Your task to perform on an android device: Search for nike dri-fit shirts on Nike Image 0: 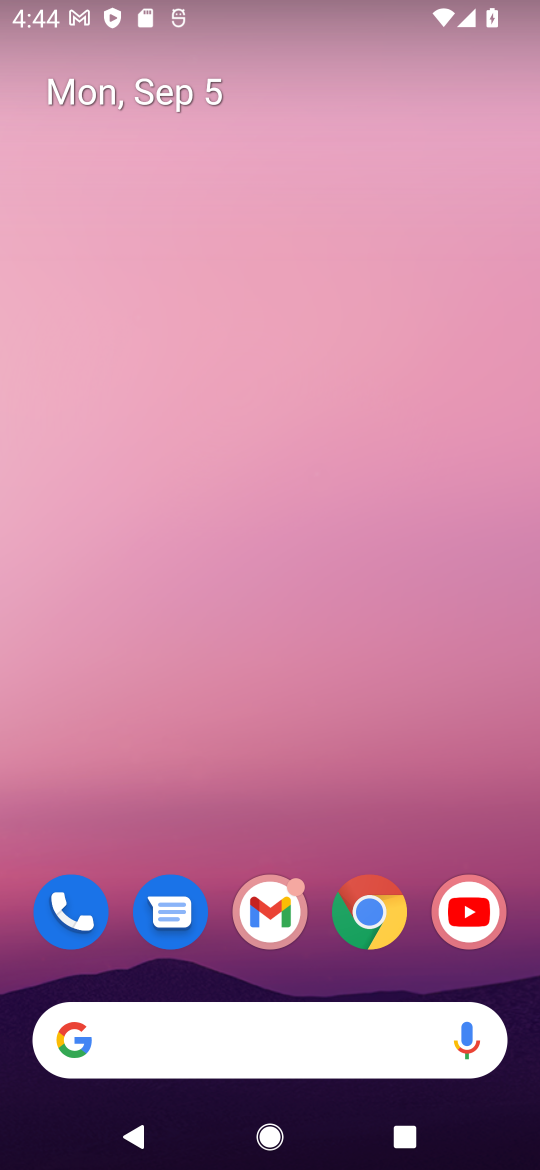
Step 0: click (378, 922)
Your task to perform on an android device: Search for nike dri-fit shirts on Nike Image 1: 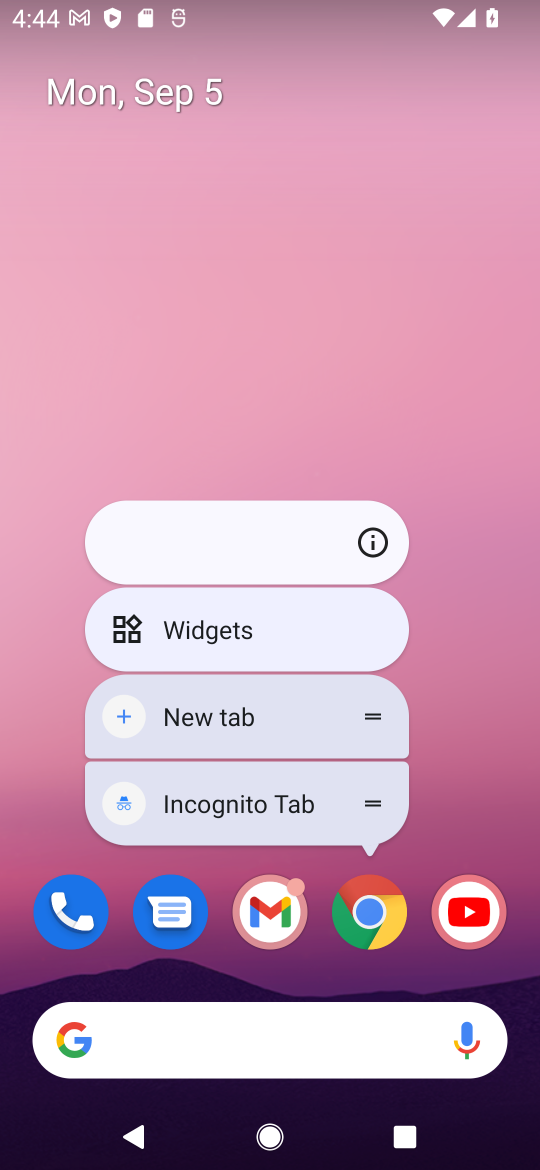
Step 1: click (375, 905)
Your task to perform on an android device: Search for nike dri-fit shirts on Nike Image 2: 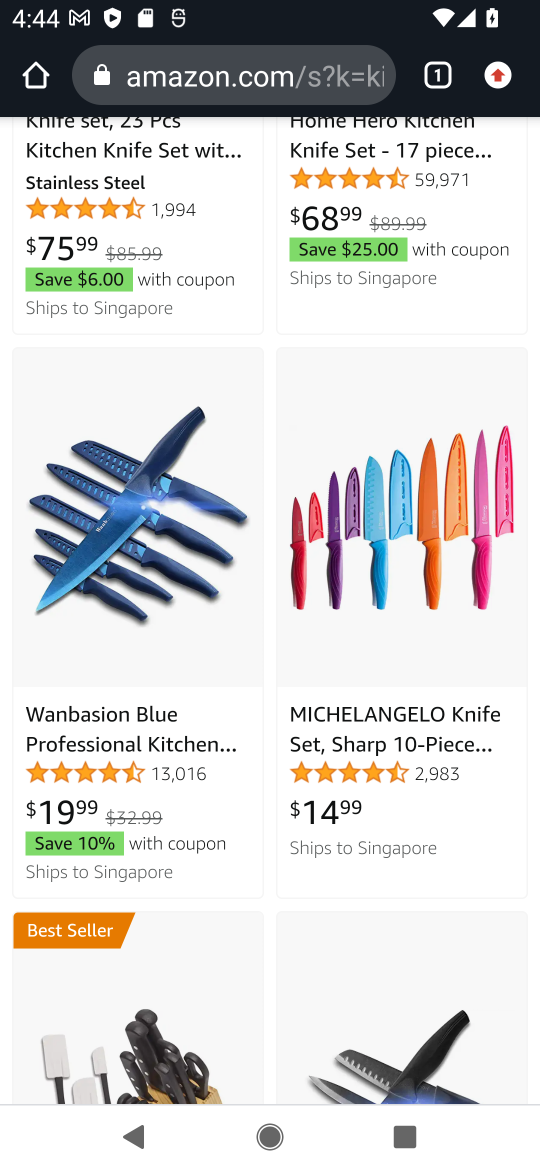
Step 2: click (253, 80)
Your task to perform on an android device: Search for nike dri-fit shirts on Nike Image 3: 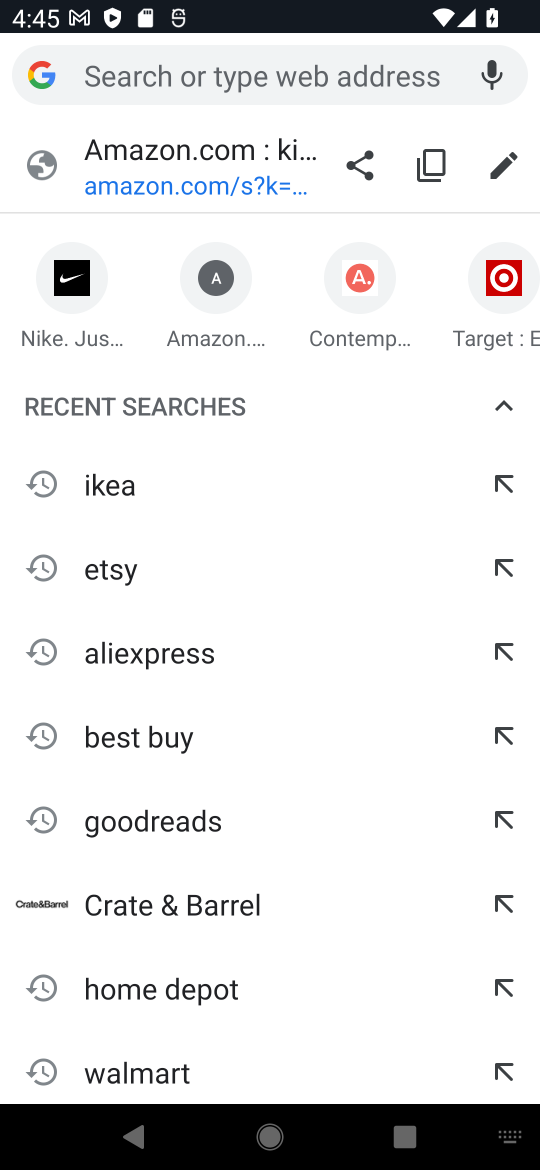
Step 3: type "nike"
Your task to perform on an android device: Search for nike dri-fit shirts on Nike Image 4: 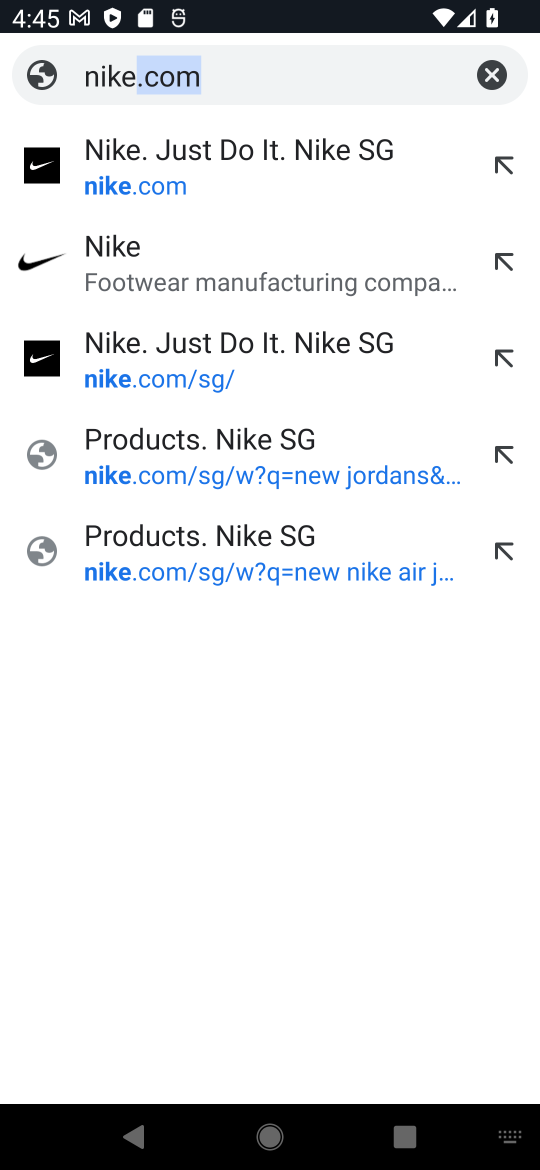
Step 4: press enter
Your task to perform on an android device: Search for nike dri-fit shirts on Nike Image 5: 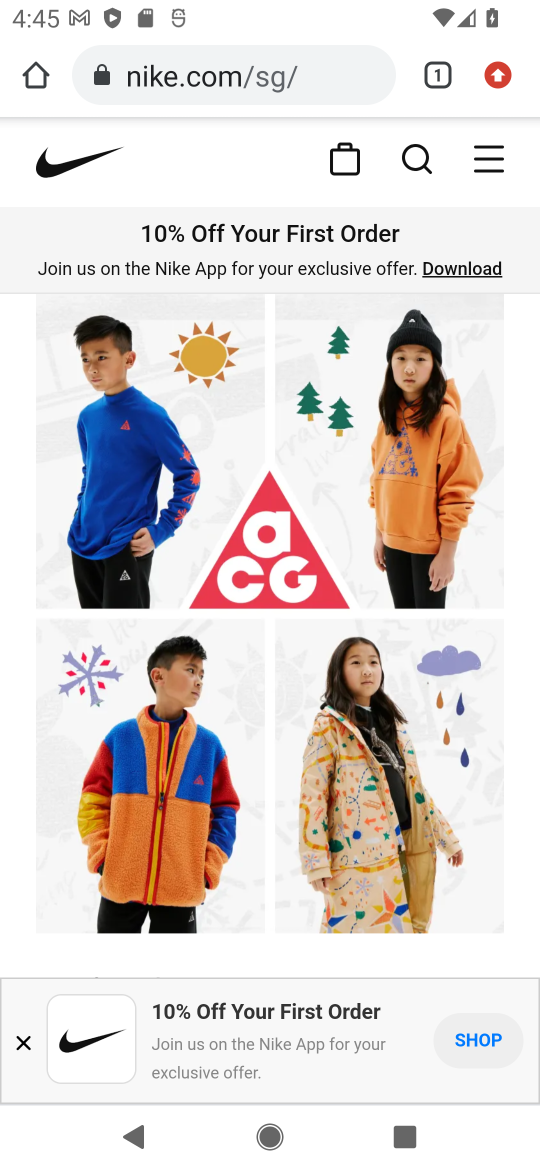
Step 5: click (416, 154)
Your task to perform on an android device: Search for nike dri-fit shirts on Nike Image 6: 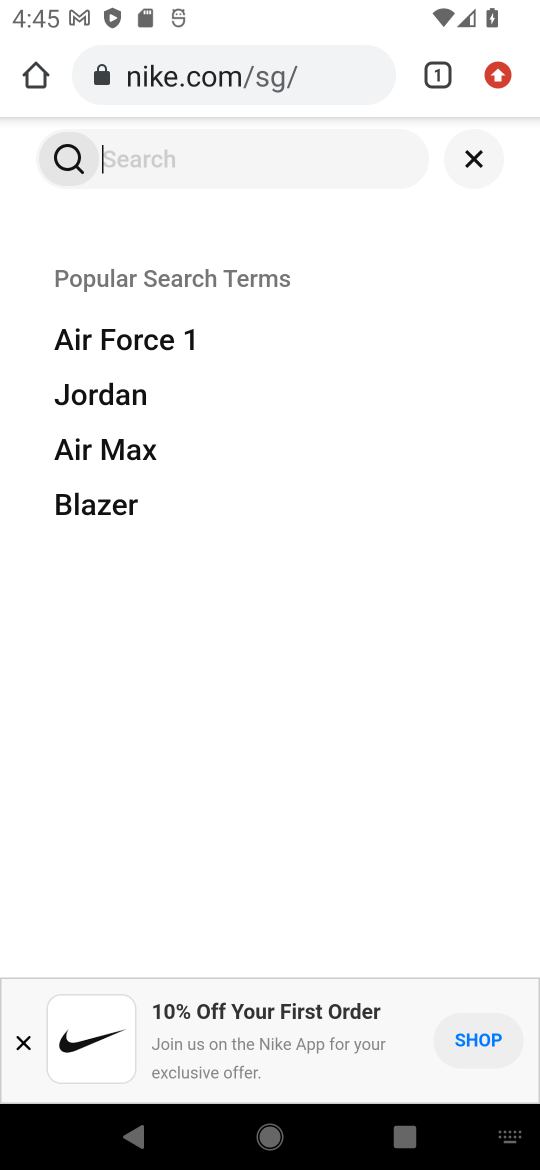
Step 6: type "nike dri-fit shirts"
Your task to perform on an android device: Search for nike dri-fit shirts on Nike Image 7: 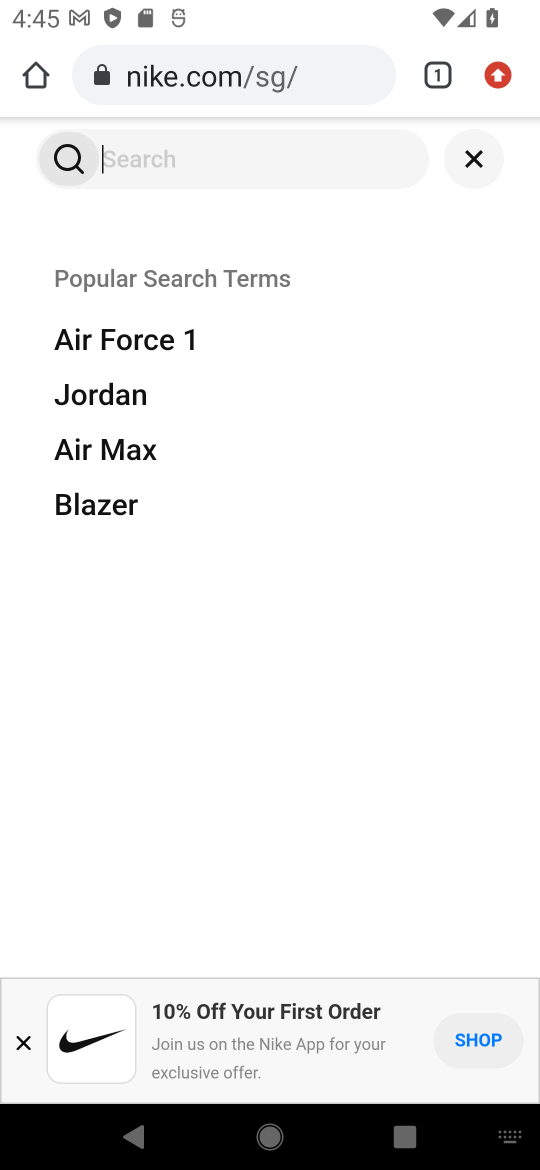
Step 7: type ""
Your task to perform on an android device: Search for nike dri-fit shirts on Nike Image 8: 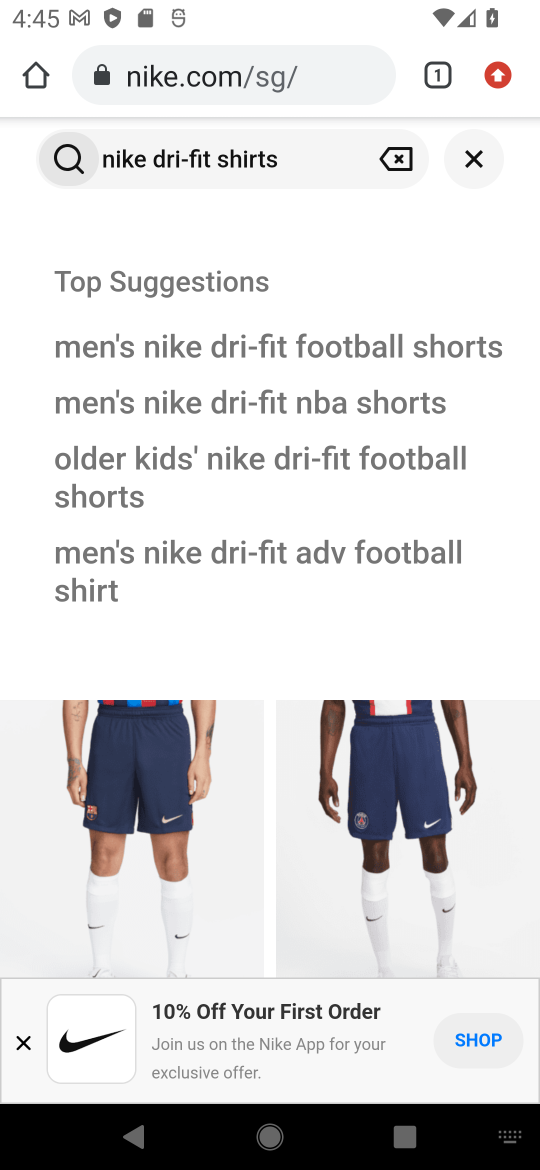
Step 8: press enter
Your task to perform on an android device: Search for nike dri-fit shirts on Nike Image 9: 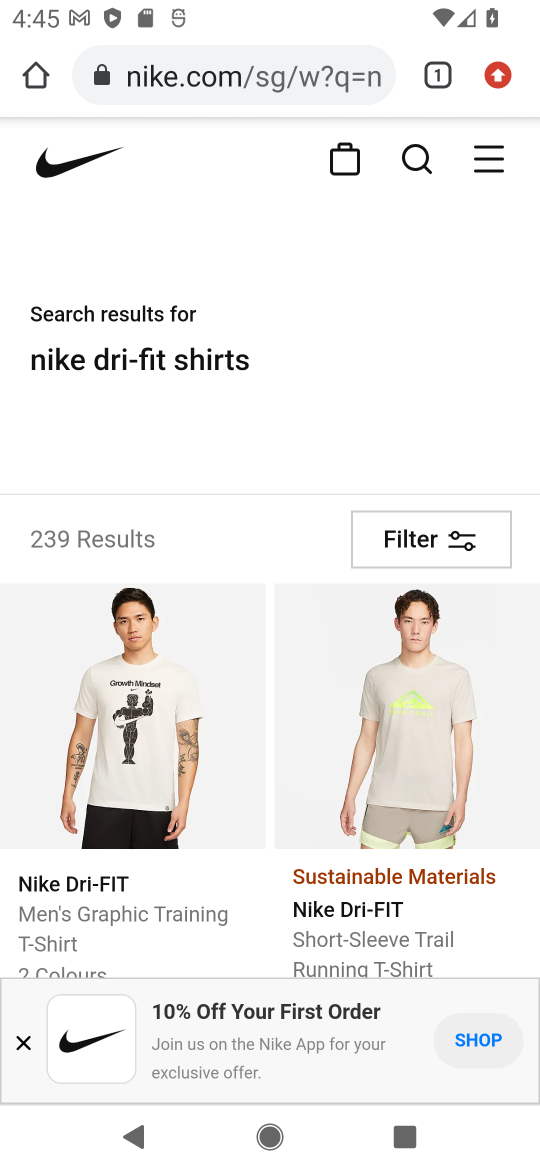
Step 9: drag from (356, 904) to (345, 335)
Your task to perform on an android device: Search for nike dri-fit shirts on Nike Image 10: 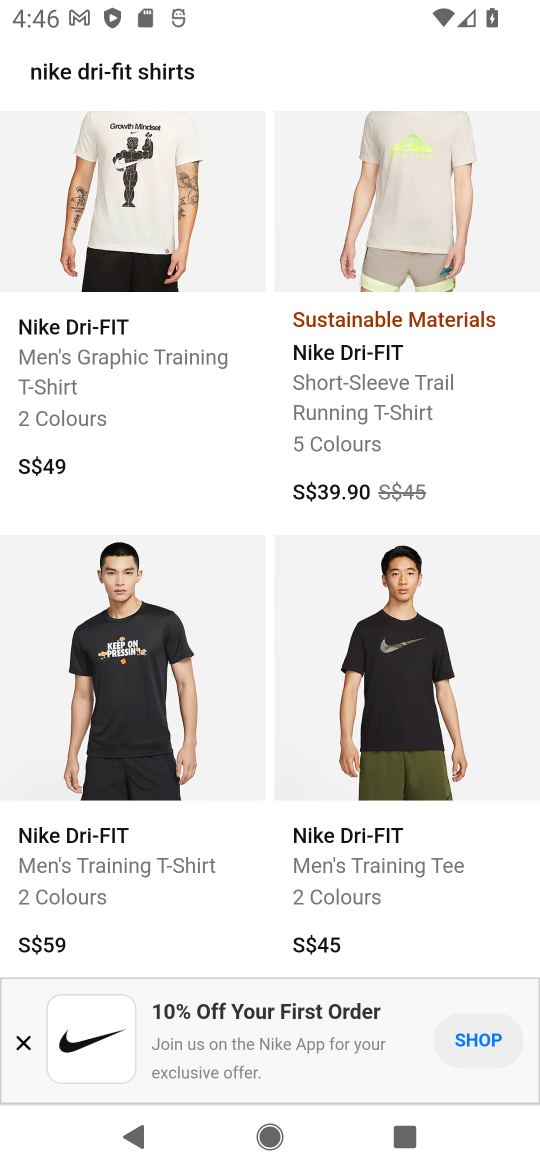
Step 10: drag from (230, 667) to (323, 295)
Your task to perform on an android device: Search for nike dri-fit shirts on Nike Image 11: 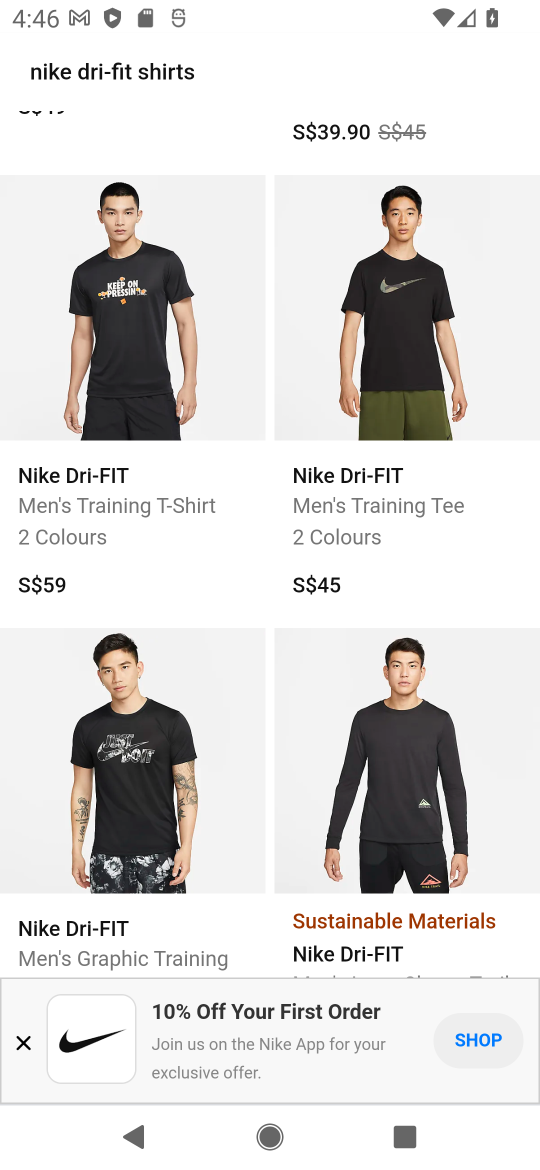
Step 11: press enter
Your task to perform on an android device: Search for nike dri-fit shirts on Nike Image 12: 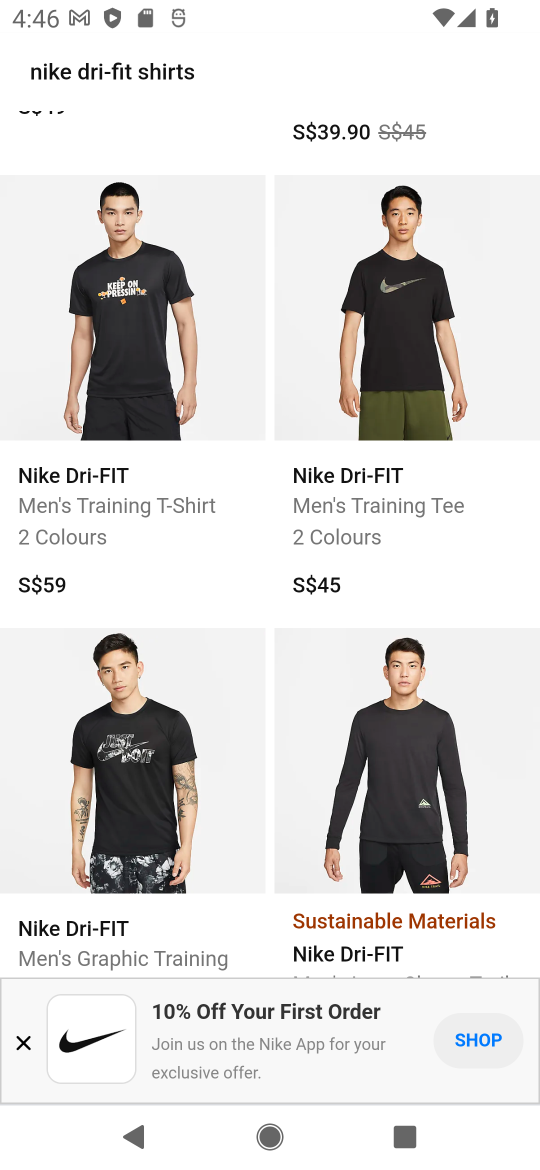
Step 12: task complete